Your task to perform on an android device: add a contact in the contacts app Image 0: 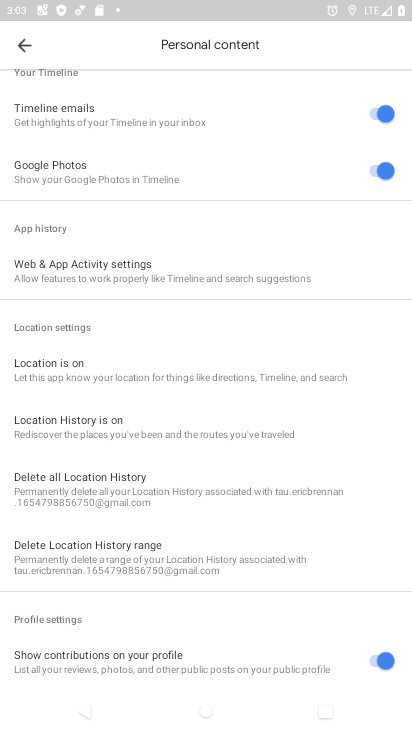
Step 0: press home button
Your task to perform on an android device: add a contact in the contacts app Image 1: 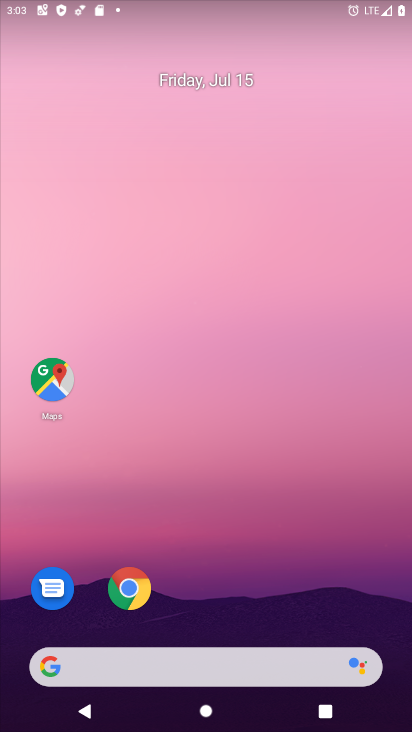
Step 1: drag from (216, 661) to (259, 235)
Your task to perform on an android device: add a contact in the contacts app Image 2: 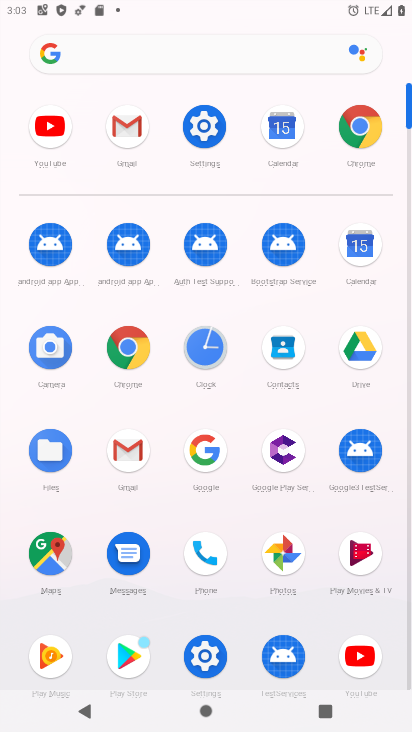
Step 2: click (281, 347)
Your task to perform on an android device: add a contact in the contacts app Image 3: 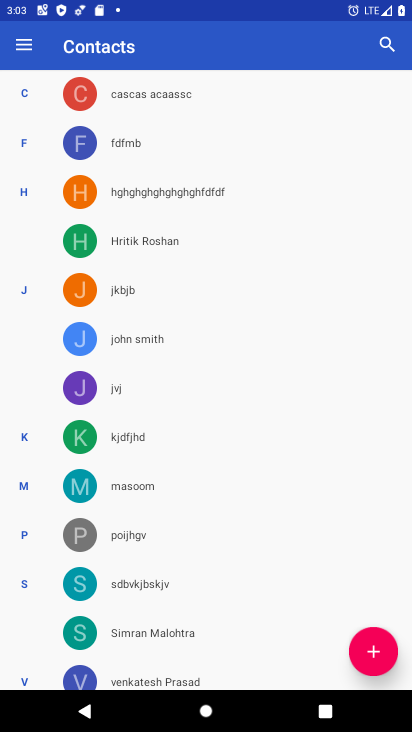
Step 3: click (375, 653)
Your task to perform on an android device: add a contact in the contacts app Image 4: 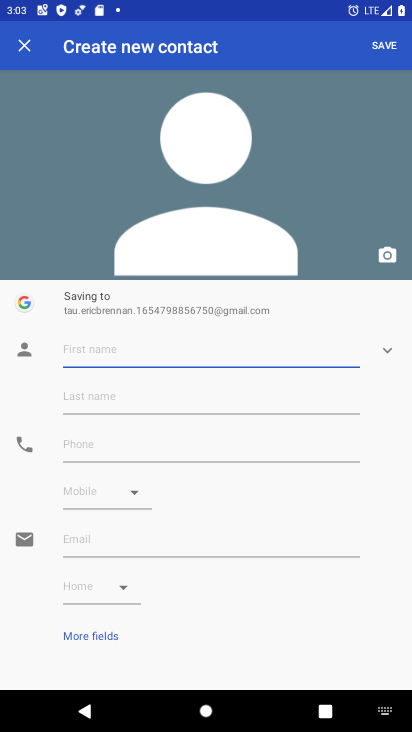
Step 4: type "Raghubir"
Your task to perform on an android device: add a contact in the contacts app Image 5: 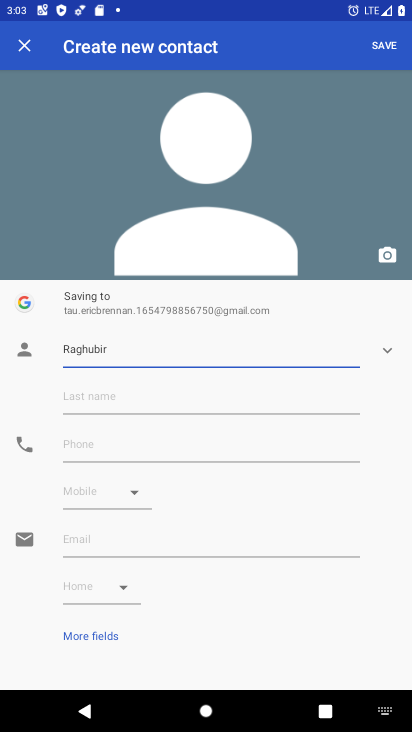
Step 5: click (228, 398)
Your task to perform on an android device: add a contact in the contacts app Image 6: 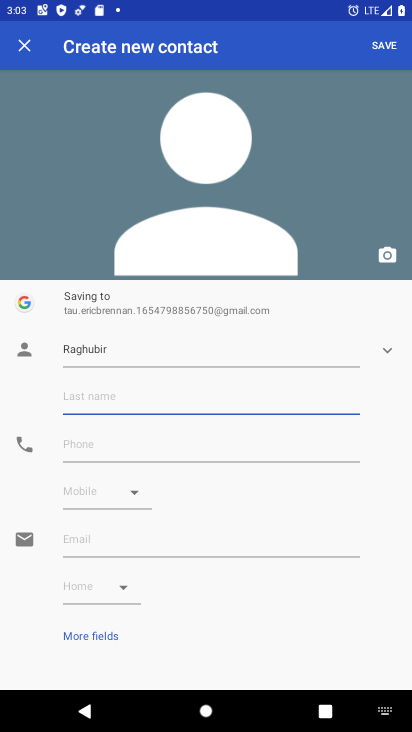
Step 6: type "Gautam"
Your task to perform on an android device: add a contact in the contacts app Image 7: 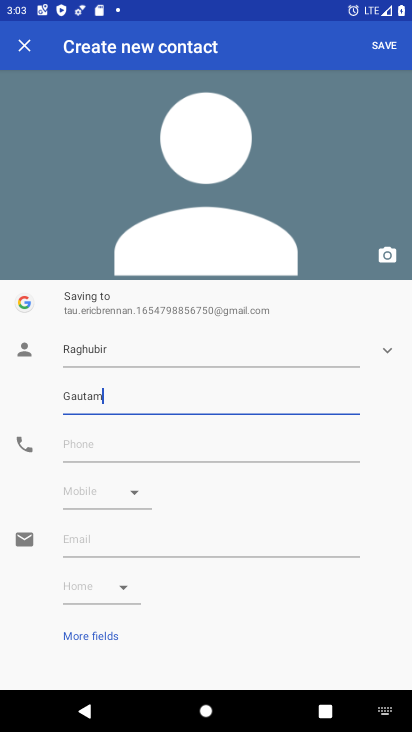
Step 7: click (261, 448)
Your task to perform on an android device: add a contact in the contacts app Image 8: 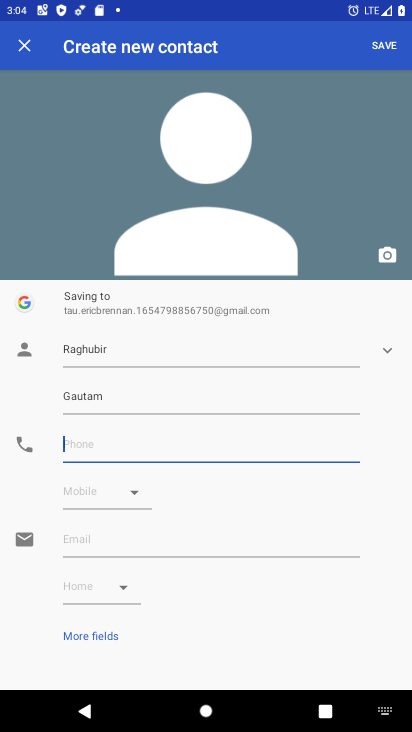
Step 8: type "0987654321"
Your task to perform on an android device: add a contact in the contacts app Image 9: 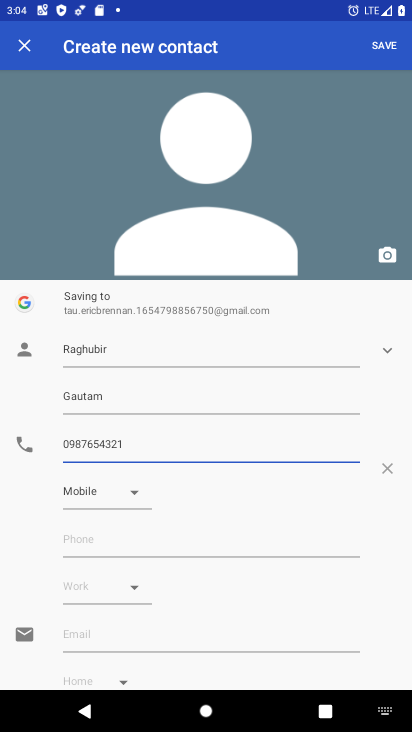
Step 9: click (386, 47)
Your task to perform on an android device: add a contact in the contacts app Image 10: 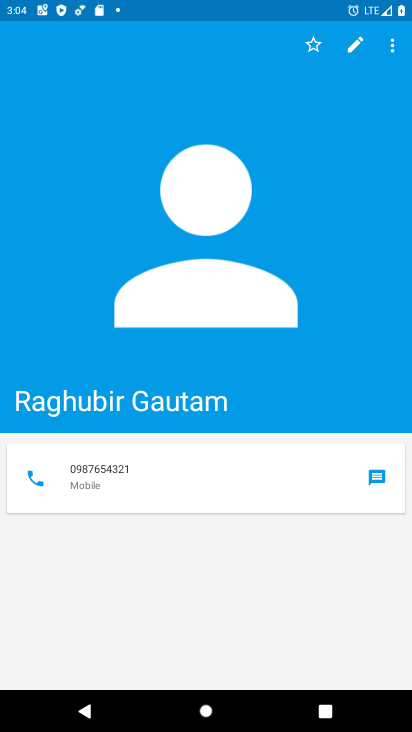
Step 10: task complete